Your task to perform on an android device: What's on my calendar today? Image 0: 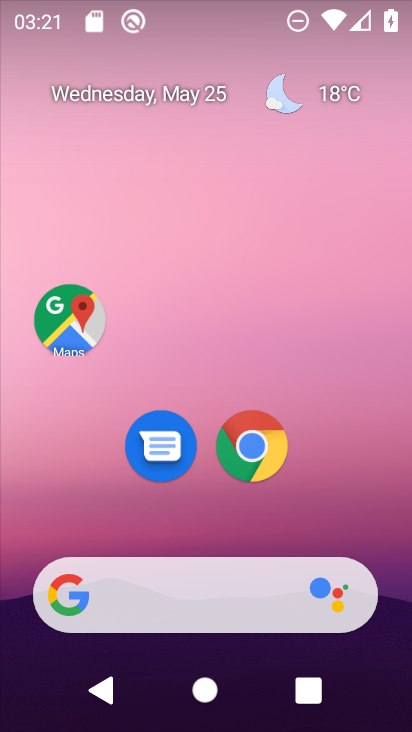
Step 0: drag from (203, 510) to (219, 193)
Your task to perform on an android device: What's on my calendar today? Image 1: 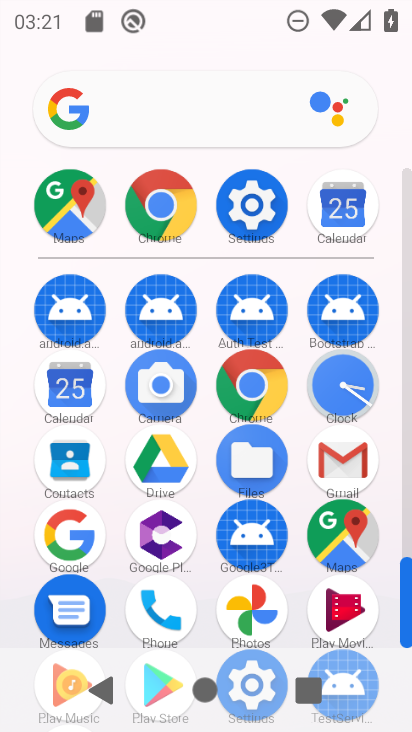
Step 1: click (77, 402)
Your task to perform on an android device: What's on my calendar today? Image 2: 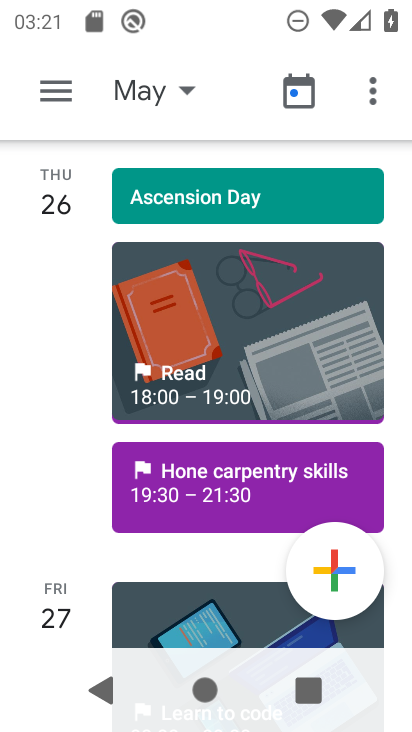
Step 2: task complete